Your task to perform on an android device: Open Maps and search for coffee Image 0: 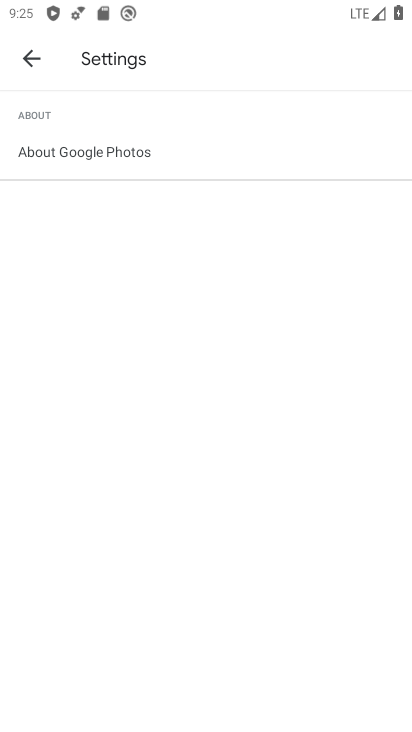
Step 0: press home button
Your task to perform on an android device: Open Maps and search for coffee Image 1: 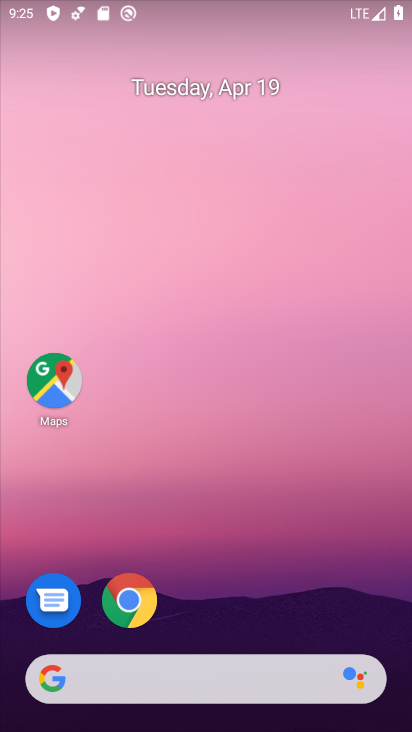
Step 1: drag from (352, 545) to (351, 83)
Your task to perform on an android device: Open Maps and search for coffee Image 2: 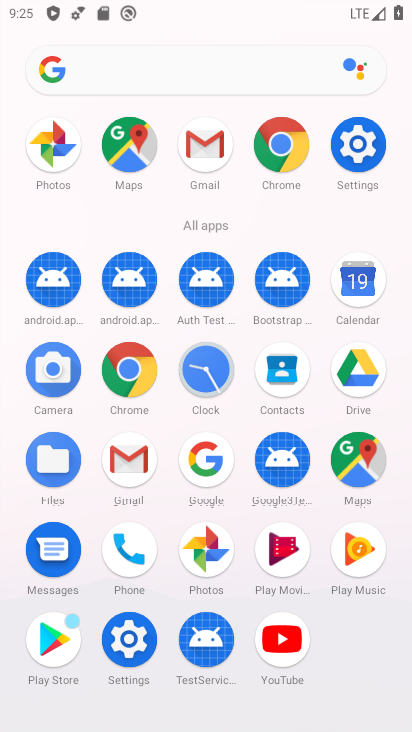
Step 2: click (130, 140)
Your task to perform on an android device: Open Maps and search for coffee Image 3: 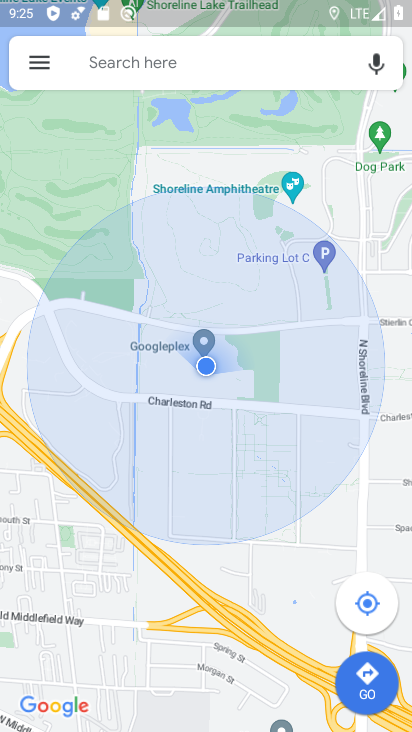
Step 3: click (218, 68)
Your task to perform on an android device: Open Maps and search for coffee Image 4: 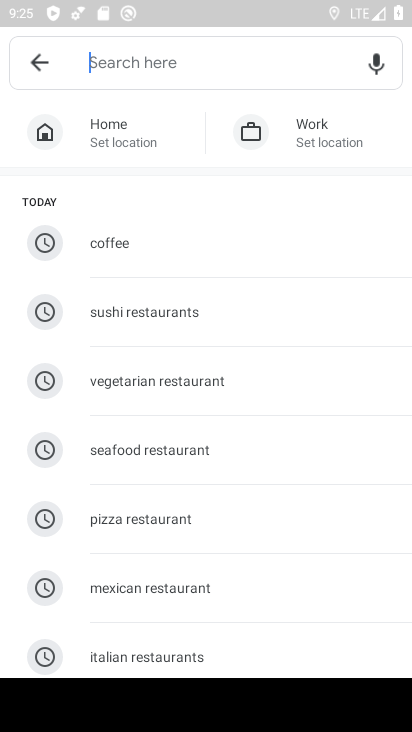
Step 4: type "coffee"
Your task to perform on an android device: Open Maps and search for coffee Image 5: 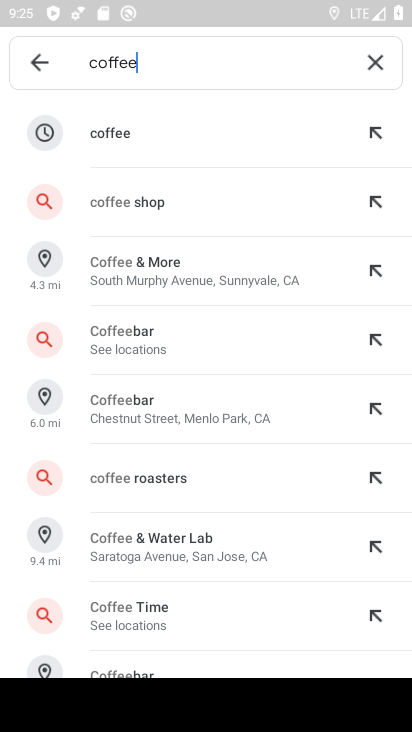
Step 5: click (202, 130)
Your task to perform on an android device: Open Maps and search for coffee Image 6: 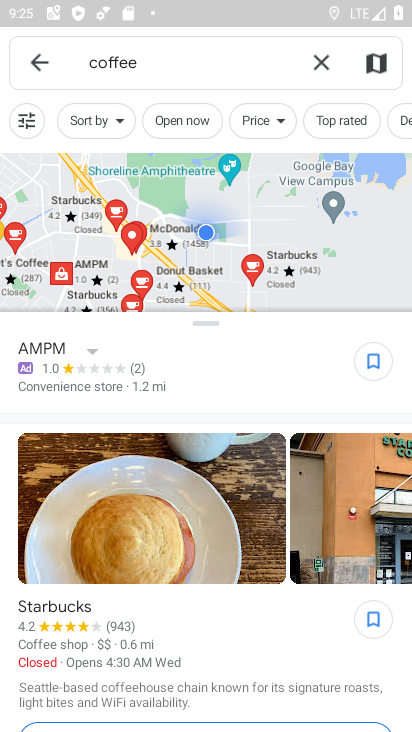
Step 6: task complete